Your task to perform on an android device: turn off improve location accuracy Image 0: 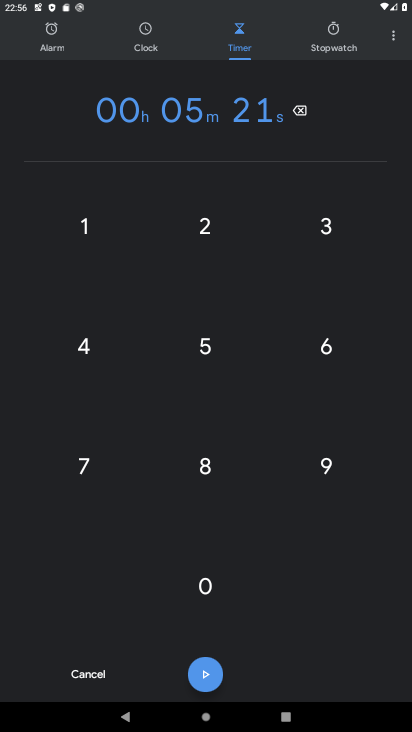
Step 0: press home button
Your task to perform on an android device: turn off improve location accuracy Image 1: 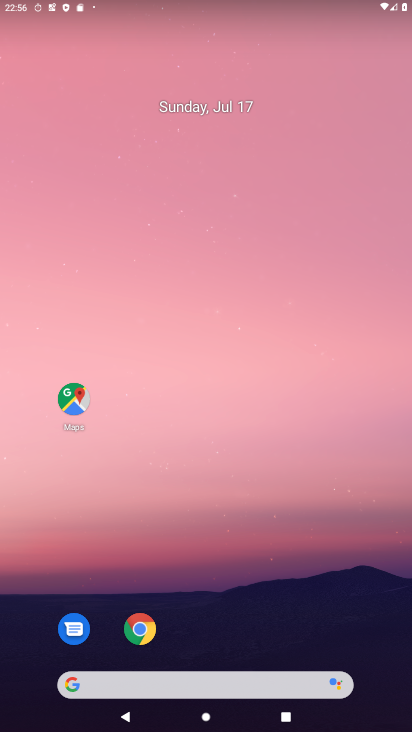
Step 1: drag from (219, 719) to (218, 51)
Your task to perform on an android device: turn off improve location accuracy Image 2: 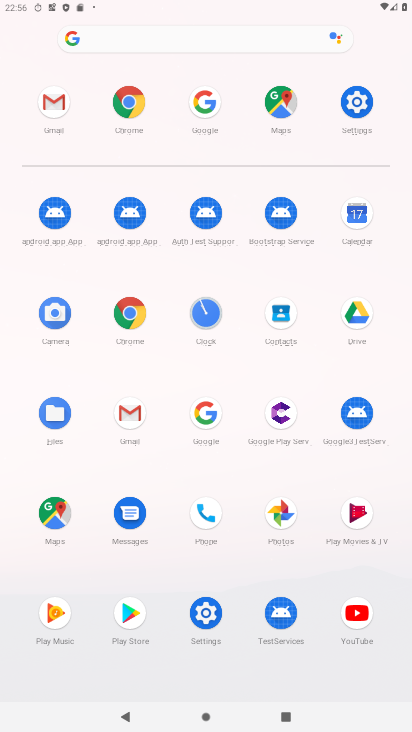
Step 2: click (359, 109)
Your task to perform on an android device: turn off improve location accuracy Image 3: 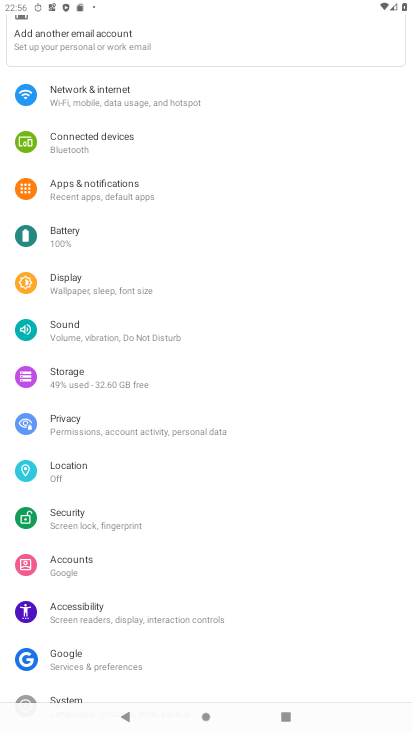
Step 3: click (64, 467)
Your task to perform on an android device: turn off improve location accuracy Image 4: 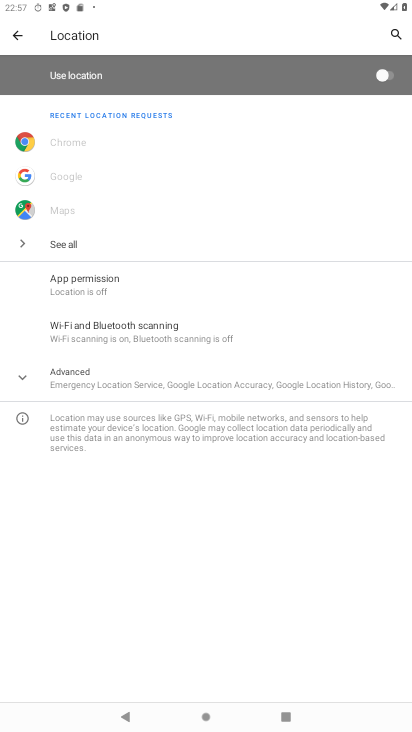
Step 4: click (77, 375)
Your task to perform on an android device: turn off improve location accuracy Image 5: 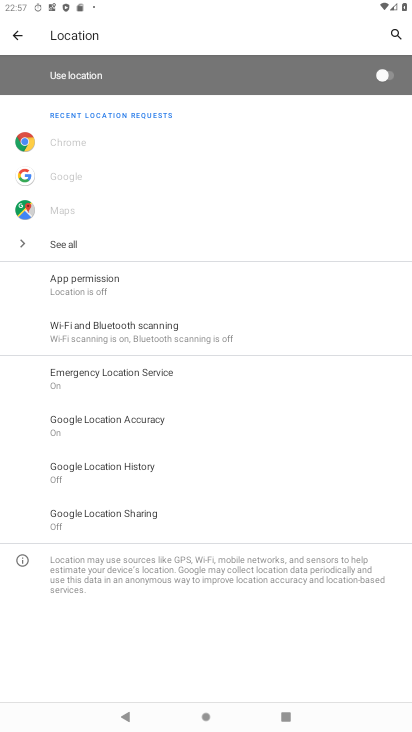
Step 5: click (110, 418)
Your task to perform on an android device: turn off improve location accuracy Image 6: 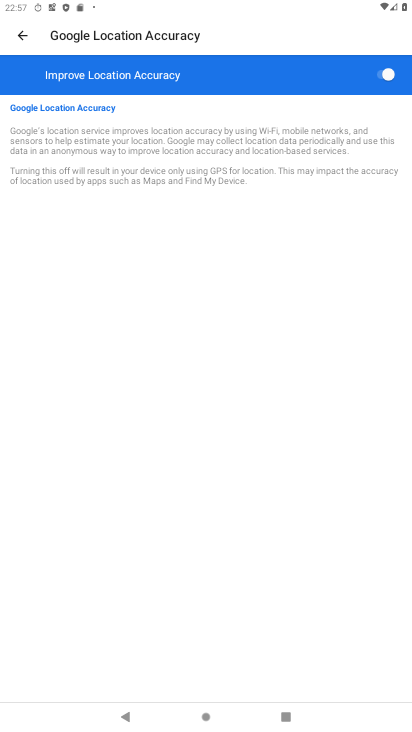
Step 6: click (383, 74)
Your task to perform on an android device: turn off improve location accuracy Image 7: 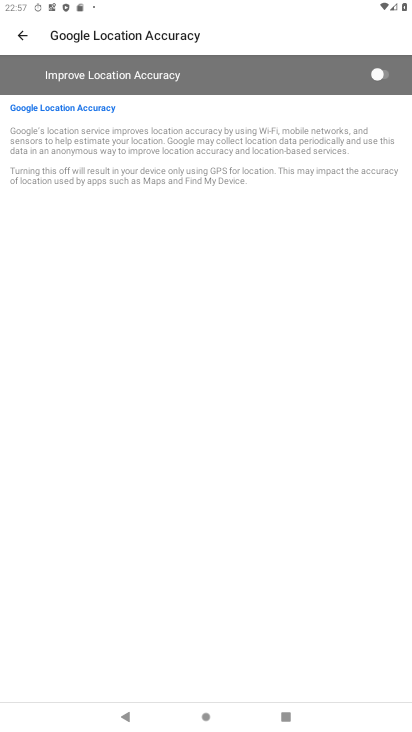
Step 7: task complete